Your task to perform on an android device: Open privacy settings Image 0: 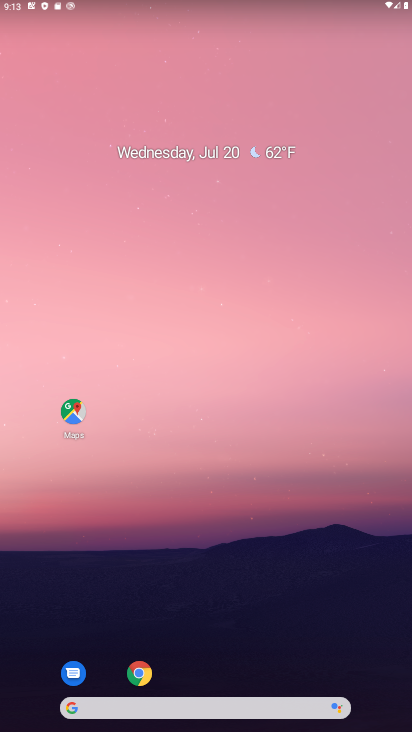
Step 0: drag from (368, 692) to (281, 263)
Your task to perform on an android device: Open privacy settings Image 1: 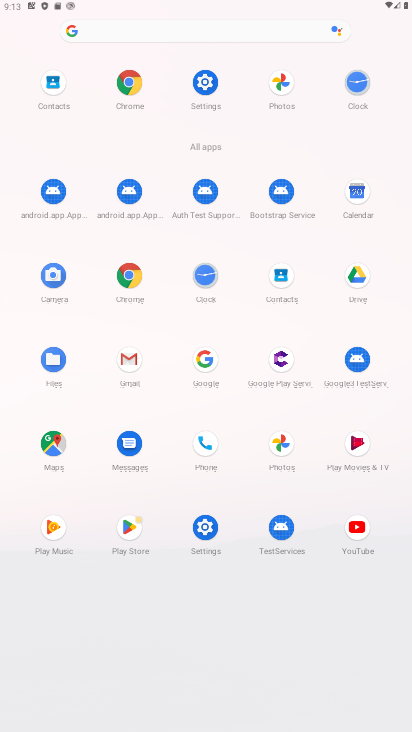
Step 1: click (200, 525)
Your task to perform on an android device: Open privacy settings Image 2: 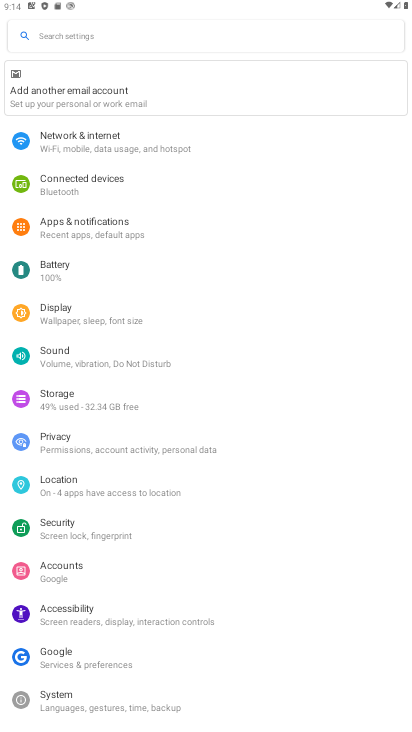
Step 2: click (75, 444)
Your task to perform on an android device: Open privacy settings Image 3: 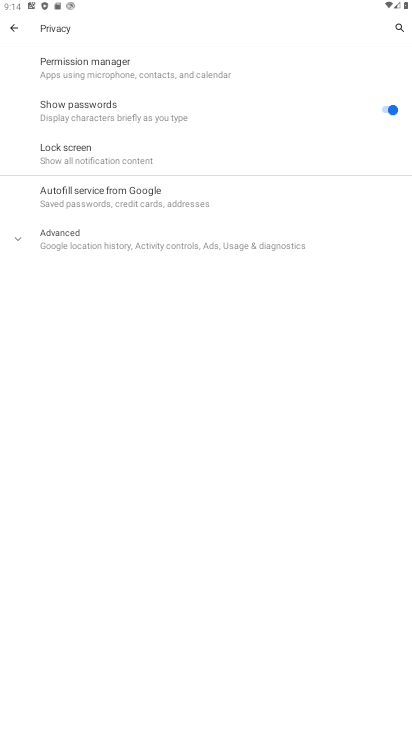
Step 3: task complete